Your task to perform on an android device: empty trash in google photos Image 0: 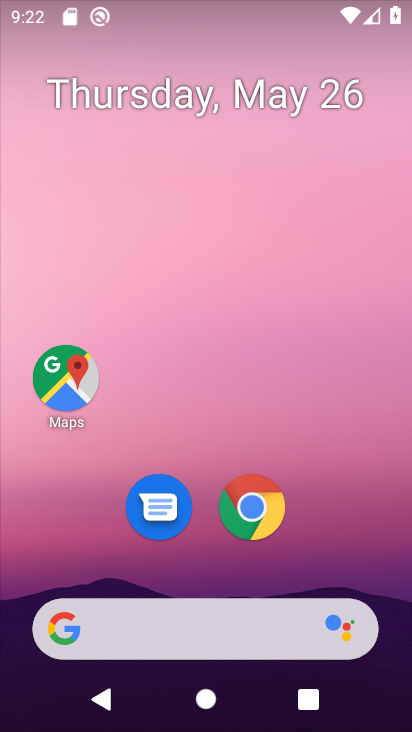
Step 0: drag from (384, 589) to (353, 172)
Your task to perform on an android device: empty trash in google photos Image 1: 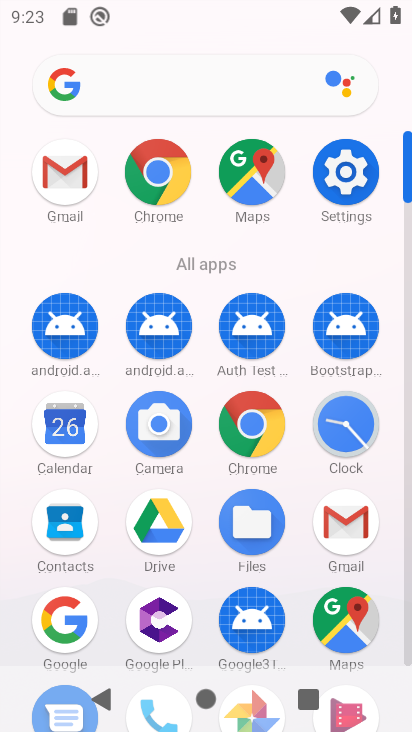
Step 1: drag from (385, 585) to (392, 271)
Your task to perform on an android device: empty trash in google photos Image 2: 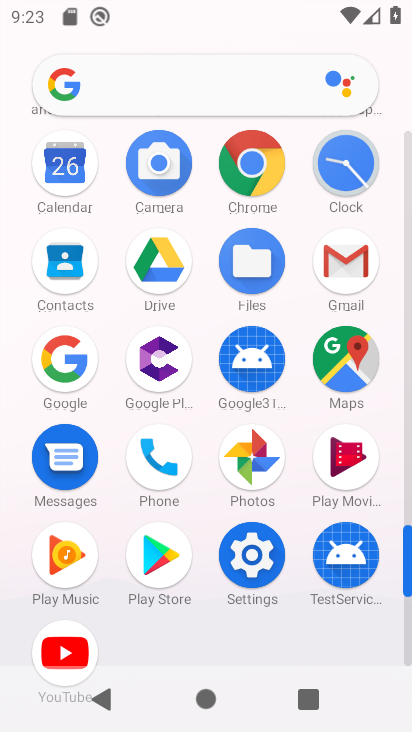
Step 2: click (255, 479)
Your task to perform on an android device: empty trash in google photos Image 3: 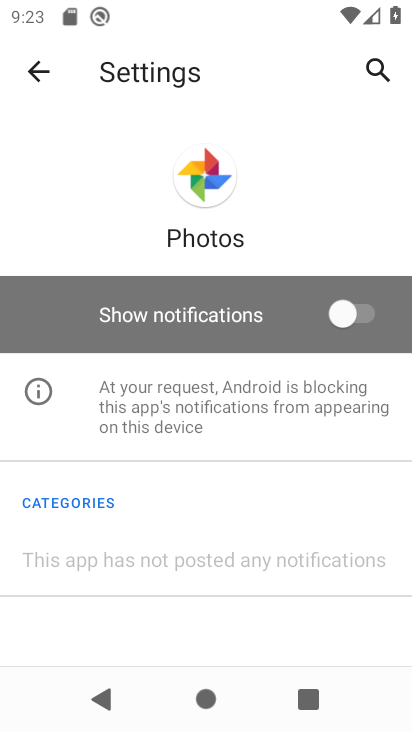
Step 3: click (26, 61)
Your task to perform on an android device: empty trash in google photos Image 4: 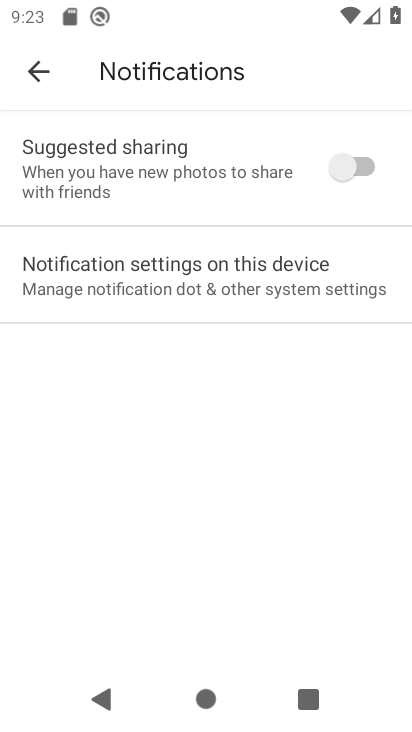
Step 4: click (26, 61)
Your task to perform on an android device: empty trash in google photos Image 5: 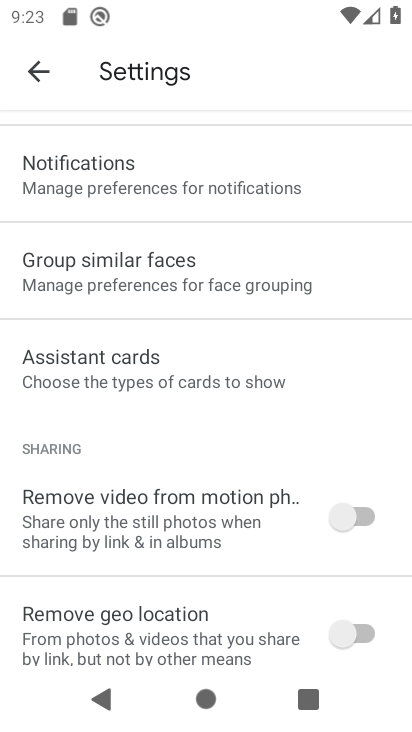
Step 5: click (39, 79)
Your task to perform on an android device: empty trash in google photos Image 6: 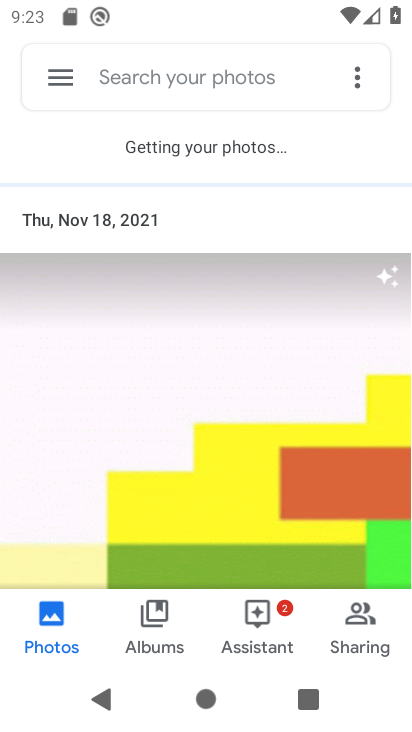
Step 6: click (62, 81)
Your task to perform on an android device: empty trash in google photos Image 7: 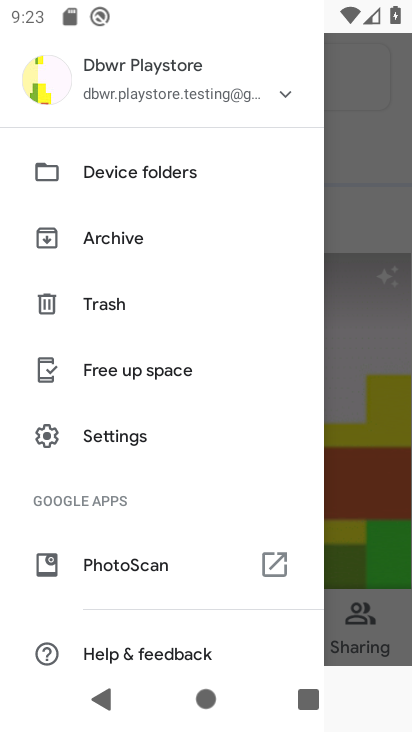
Step 7: click (110, 299)
Your task to perform on an android device: empty trash in google photos Image 8: 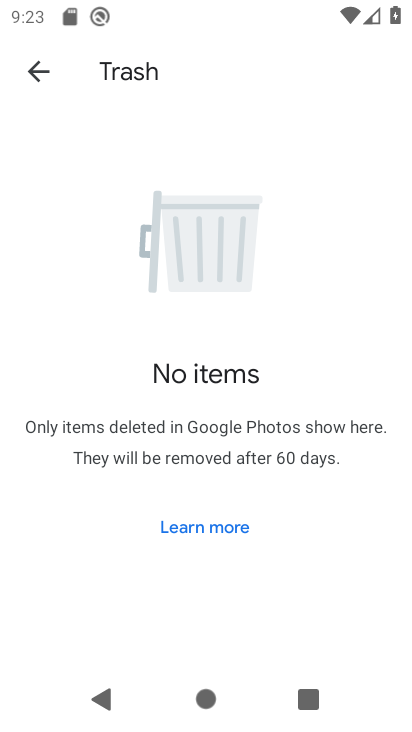
Step 8: task complete